Your task to perform on an android device: turn off javascript in the chrome app Image 0: 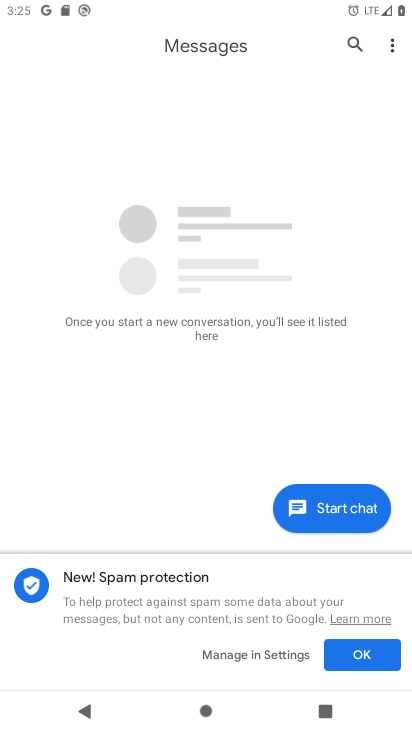
Step 0: press home button
Your task to perform on an android device: turn off javascript in the chrome app Image 1: 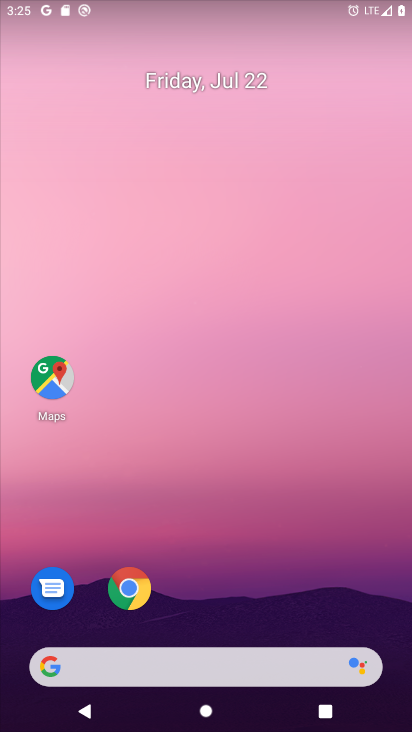
Step 1: drag from (262, 596) to (341, 39)
Your task to perform on an android device: turn off javascript in the chrome app Image 2: 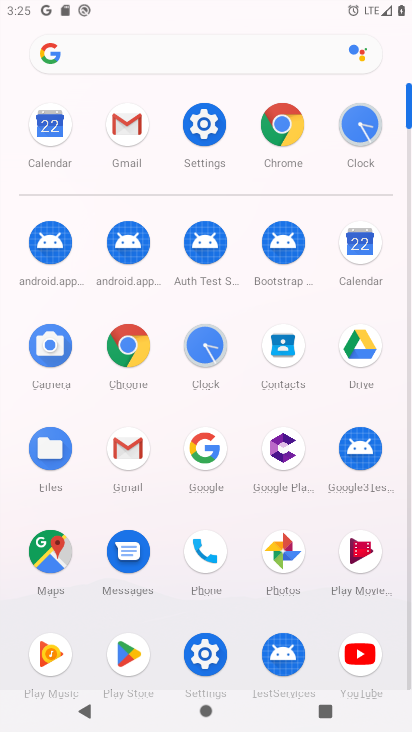
Step 2: click (121, 334)
Your task to perform on an android device: turn off javascript in the chrome app Image 3: 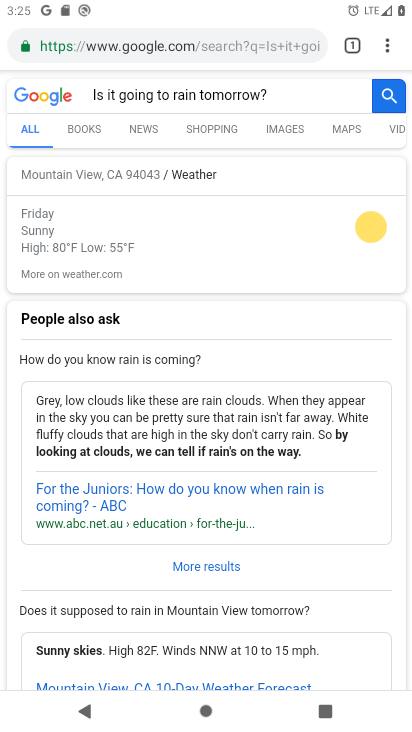
Step 3: drag from (384, 49) to (212, 510)
Your task to perform on an android device: turn off javascript in the chrome app Image 4: 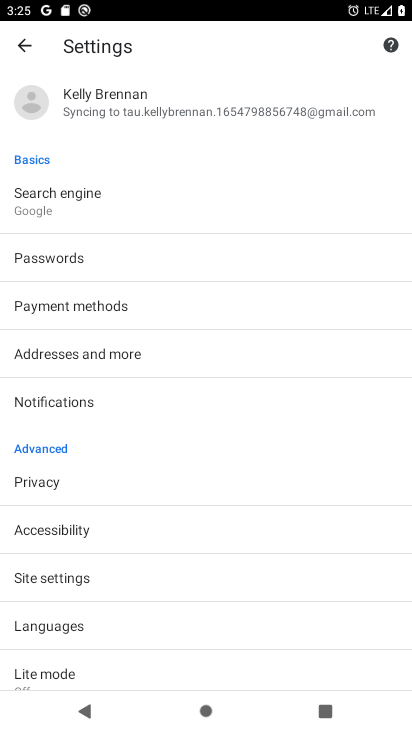
Step 4: click (76, 576)
Your task to perform on an android device: turn off javascript in the chrome app Image 5: 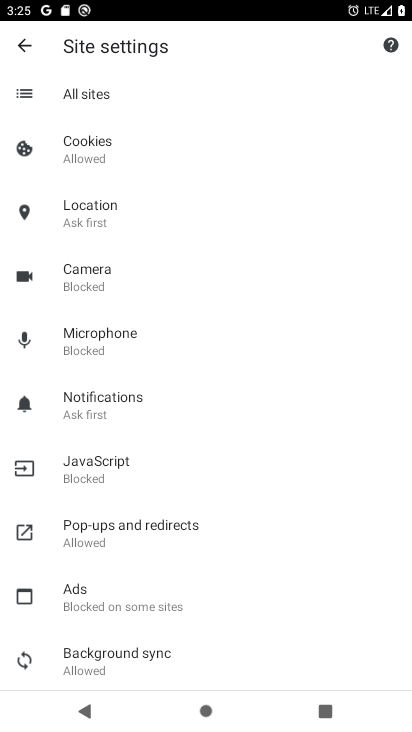
Step 5: click (89, 452)
Your task to perform on an android device: turn off javascript in the chrome app Image 6: 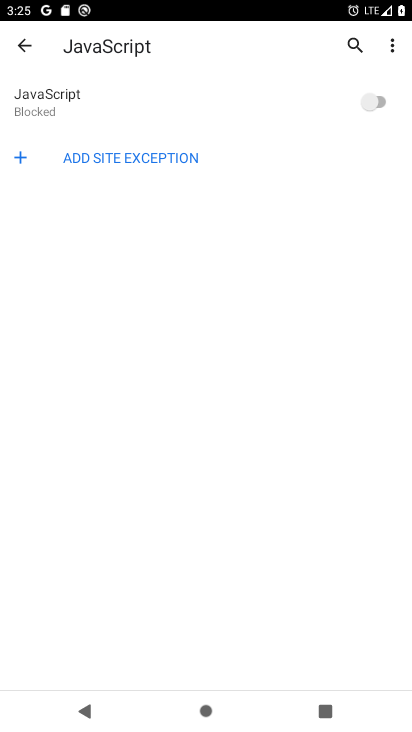
Step 6: task complete